Your task to perform on an android device: Open battery settings Image 0: 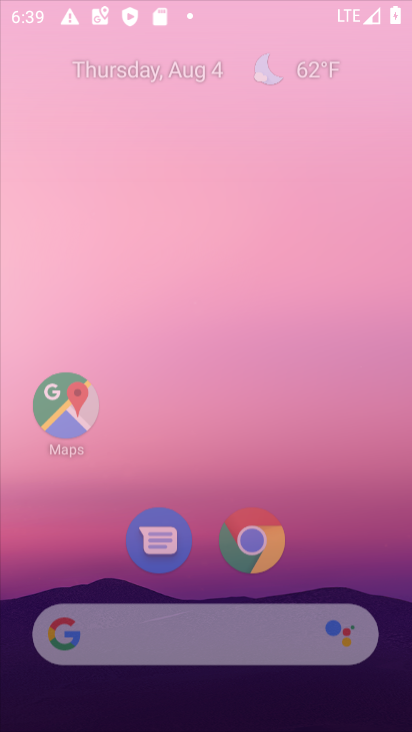
Step 0: press home button
Your task to perform on an android device: Open battery settings Image 1: 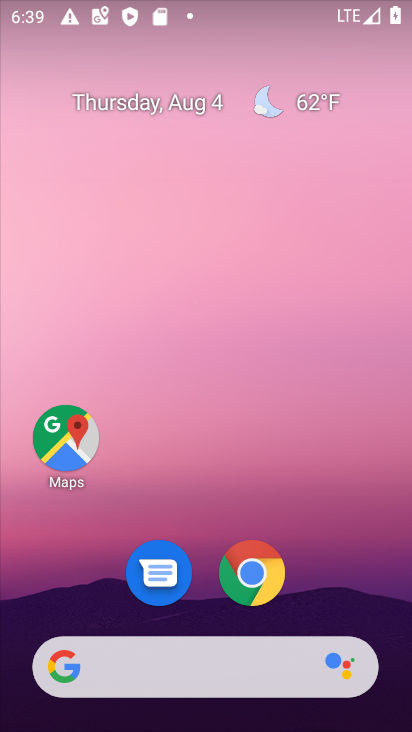
Step 1: drag from (208, 610) to (363, 61)
Your task to perform on an android device: Open battery settings Image 2: 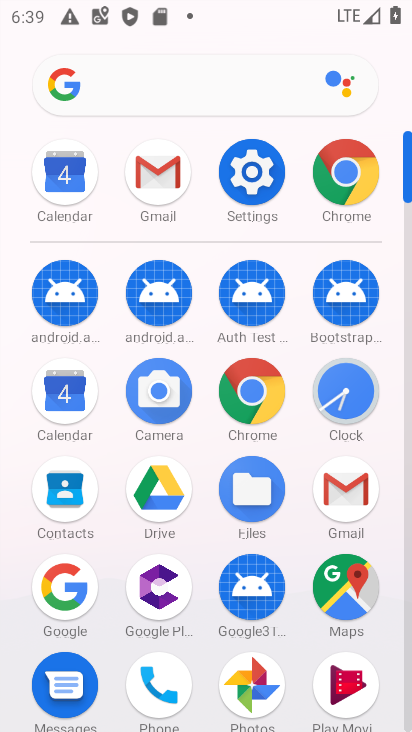
Step 2: click (252, 192)
Your task to perform on an android device: Open battery settings Image 3: 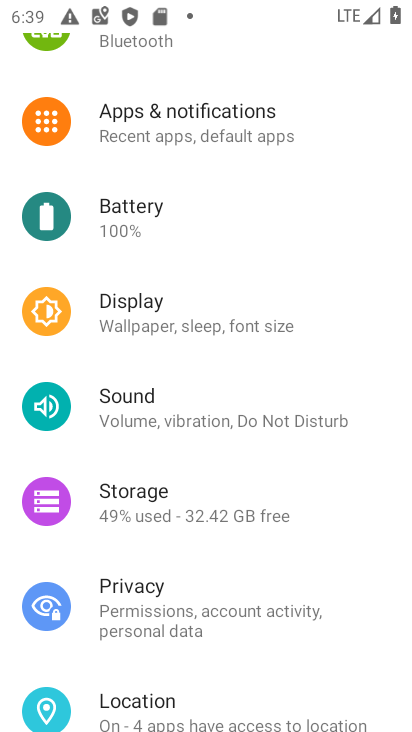
Step 3: drag from (255, 625) to (279, 705)
Your task to perform on an android device: Open battery settings Image 4: 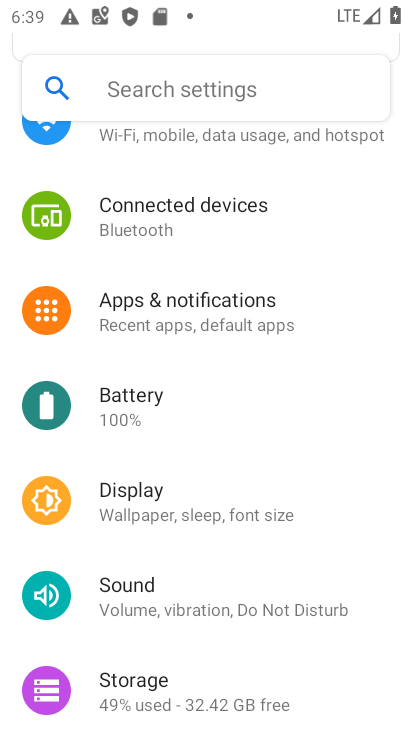
Step 4: click (132, 399)
Your task to perform on an android device: Open battery settings Image 5: 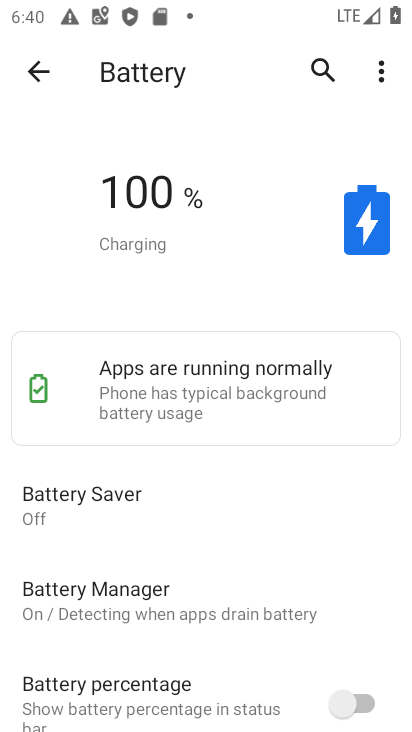
Step 5: task complete